Your task to perform on an android device: turn off translation in the chrome app Image 0: 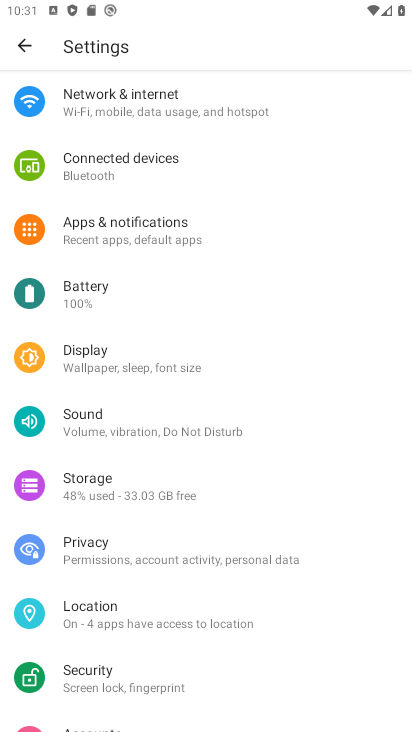
Step 0: press home button
Your task to perform on an android device: turn off translation in the chrome app Image 1: 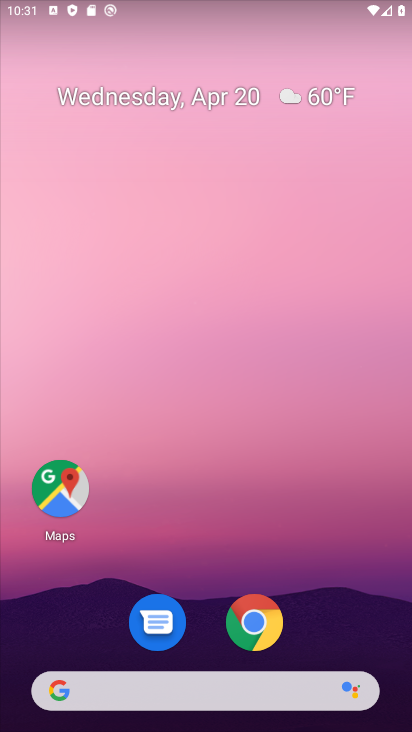
Step 1: click (239, 616)
Your task to perform on an android device: turn off translation in the chrome app Image 2: 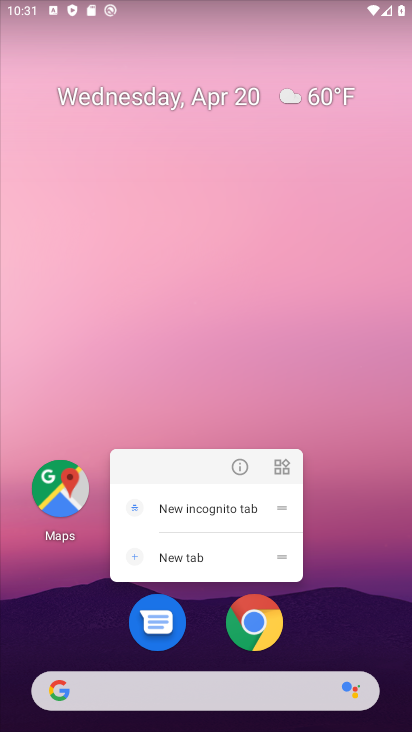
Step 2: click (239, 616)
Your task to perform on an android device: turn off translation in the chrome app Image 3: 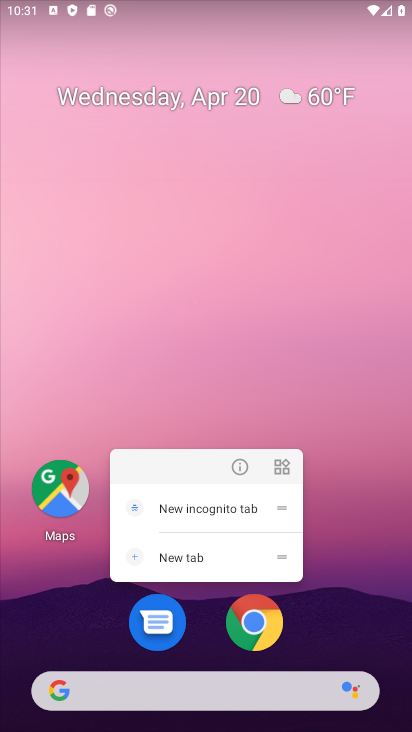
Step 3: click (242, 618)
Your task to perform on an android device: turn off translation in the chrome app Image 4: 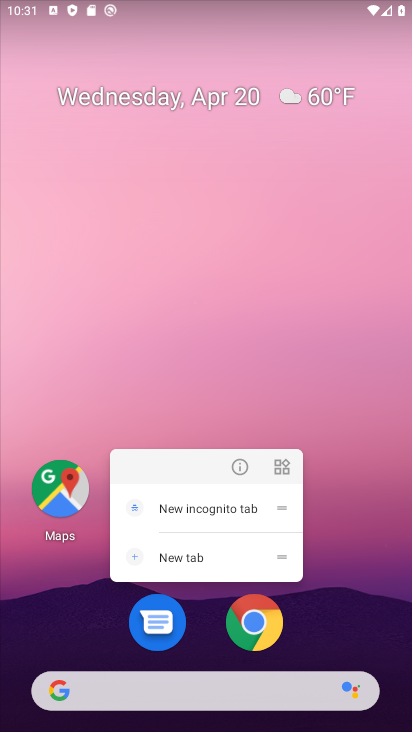
Step 4: click (256, 614)
Your task to perform on an android device: turn off translation in the chrome app Image 5: 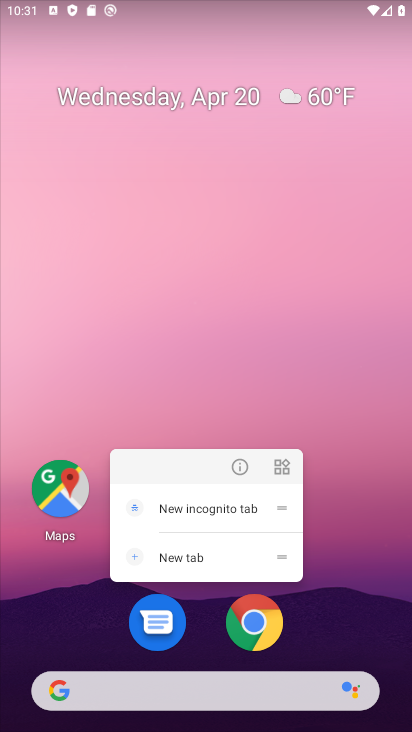
Step 5: click (268, 608)
Your task to perform on an android device: turn off translation in the chrome app Image 6: 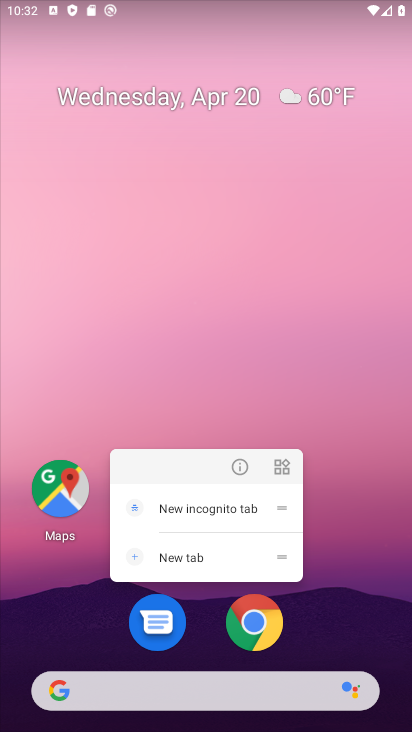
Step 6: click (248, 616)
Your task to perform on an android device: turn off translation in the chrome app Image 7: 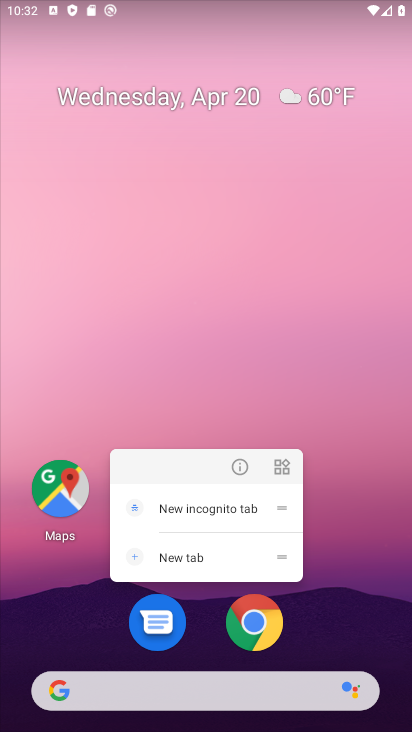
Step 7: click (248, 616)
Your task to perform on an android device: turn off translation in the chrome app Image 8: 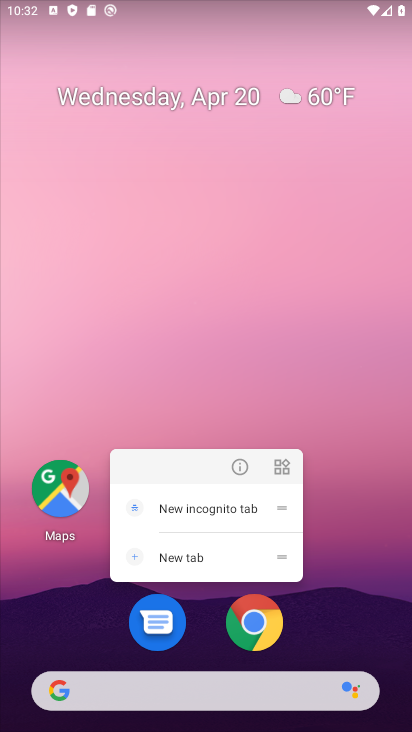
Step 8: click (248, 616)
Your task to perform on an android device: turn off translation in the chrome app Image 9: 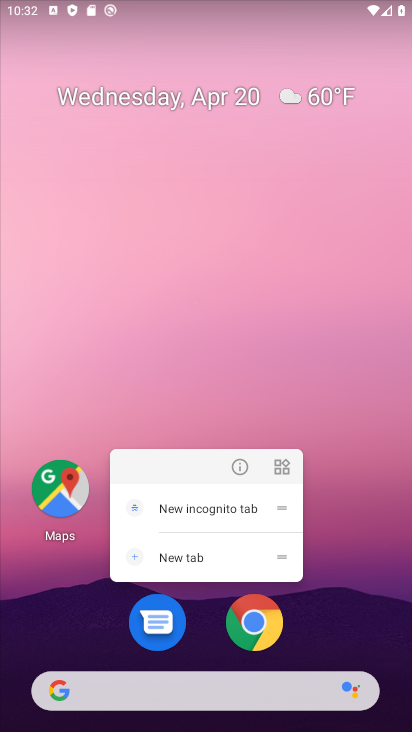
Step 9: click (248, 616)
Your task to perform on an android device: turn off translation in the chrome app Image 10: 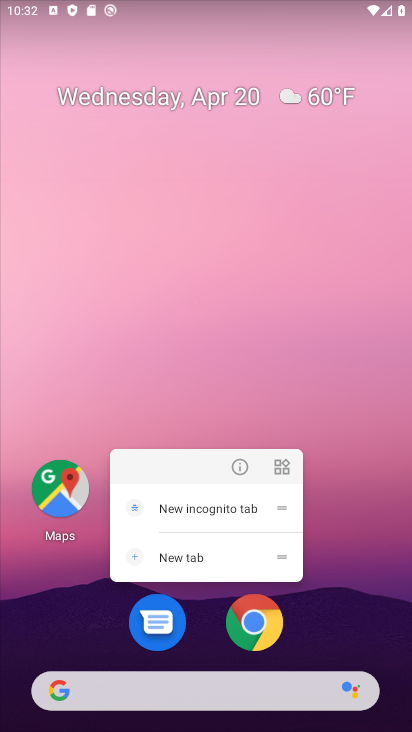
Step 10: click (248, 616)
Your task to perform on an android device: turn off translation in the chrome app Image 11: 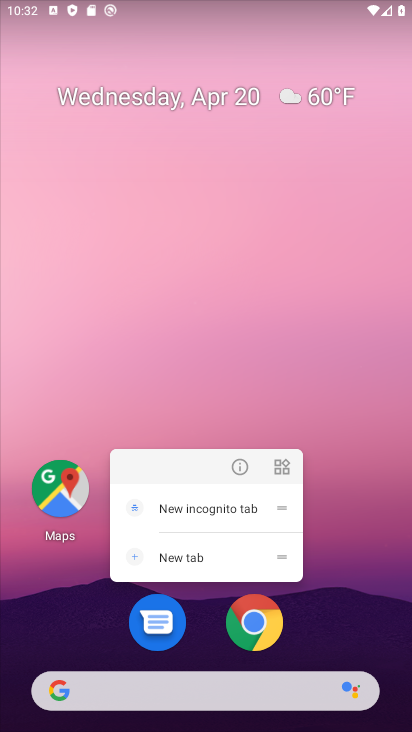
Step 11: click (248, 616)
Your task to perform on an android device: turn off translation in the chrome app Image 12: 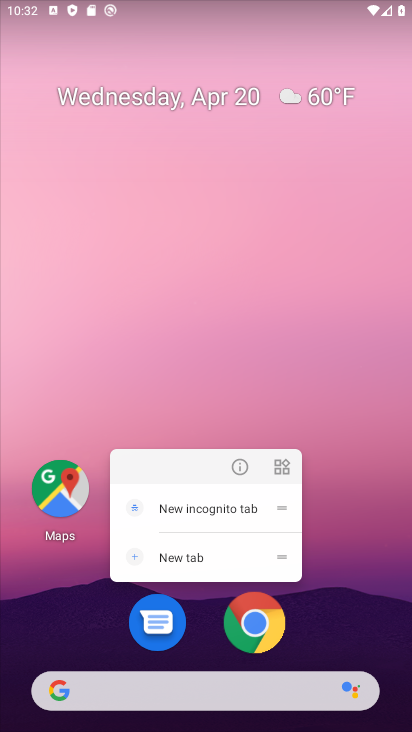
Step 12: click (248, 616)
Your task to perform on an android device: turn off translation in the chrome app Image 13: 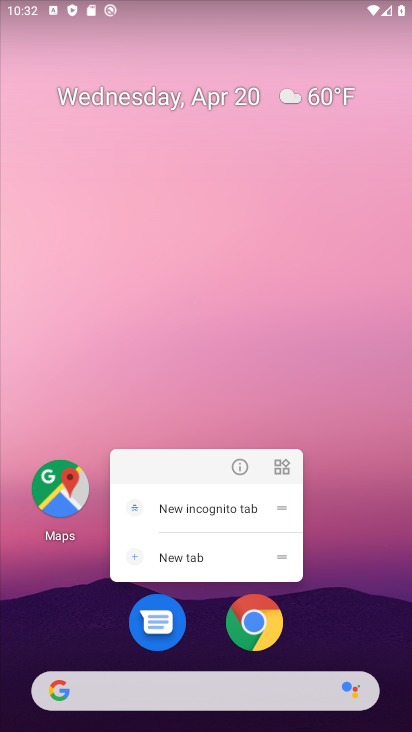
Step 13: click (248, 616)
Your task to perform on an android device: turn off translation in the chrome app Image 14: 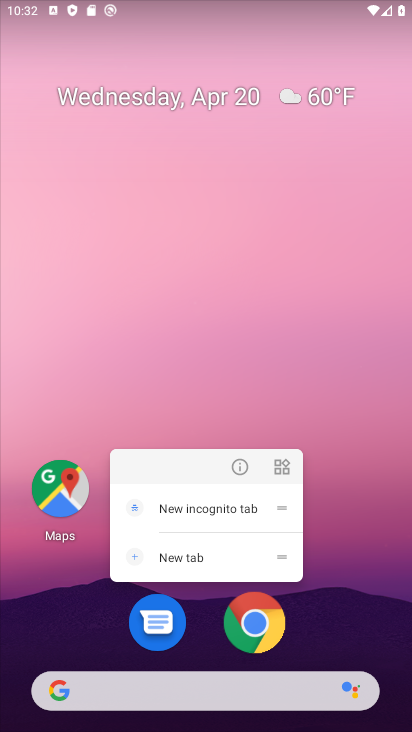
Step 14: click (248, 616)
Your task to perform on an android device: turn off translation in the chrome app Image 15: 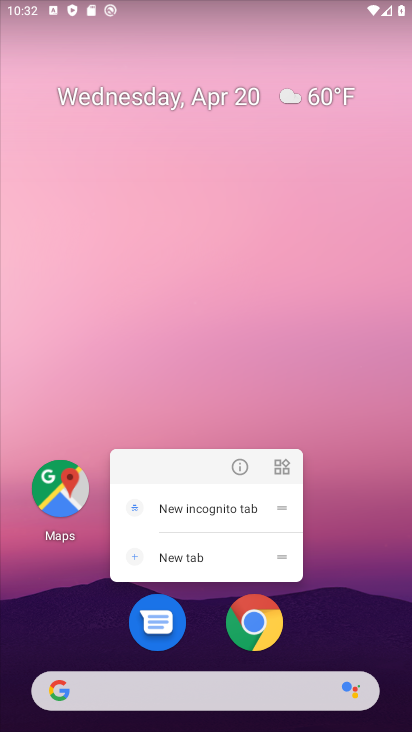
Step 15: click (248, 616)
Your task to perform on an android device: turn off translation in the chrome app Image 16: 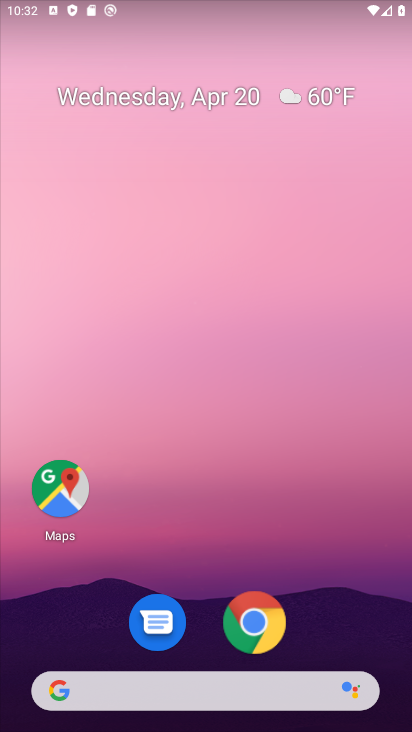
Step 16: click (248, 616)
Your task to perform on an android device: turn off translation in the chrome app Image 17: 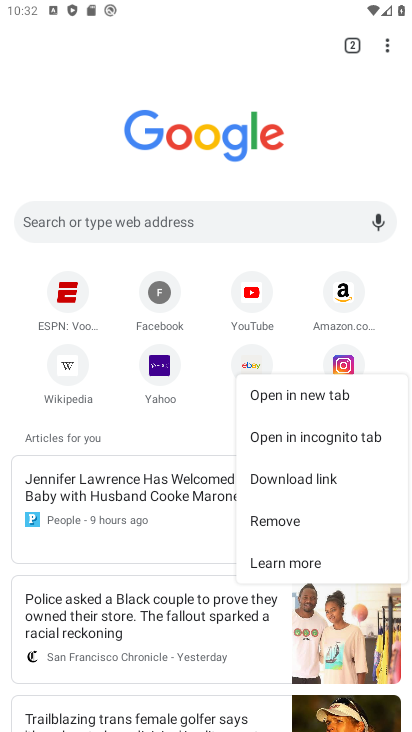
Step 17: click (382, 53)
Your task to perform on an android device: turn off translation in the chrome app Image 18: 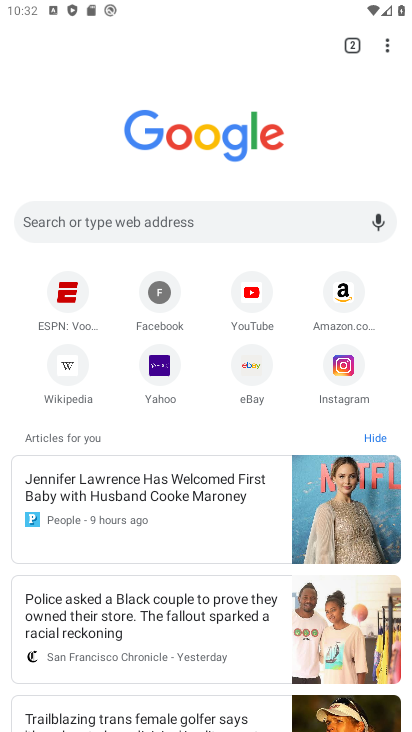
Step 18: drag from (389, 33) to (227, 374)
Your task to perform on an android device: turn off translation in the chrome app Image 19: 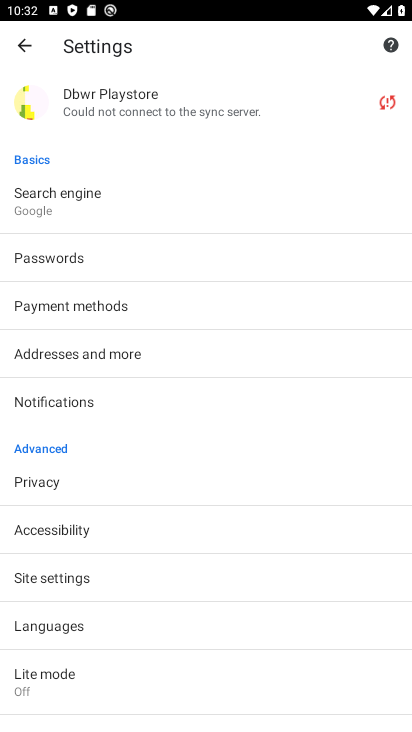
Step 19: drag from (127, 645) to (119, 265)
Your task to perform on an android device: turn off translation in the chrome app Image 20: 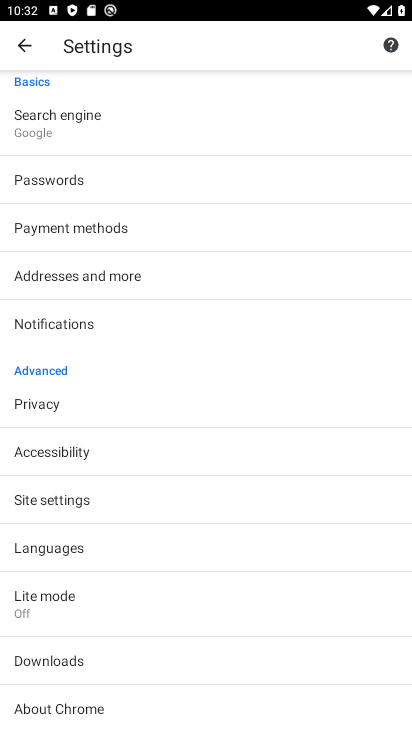
Step 20: click (63, 552)
Your task to perform on an android device: turn off translation in the chrome app Image 21: 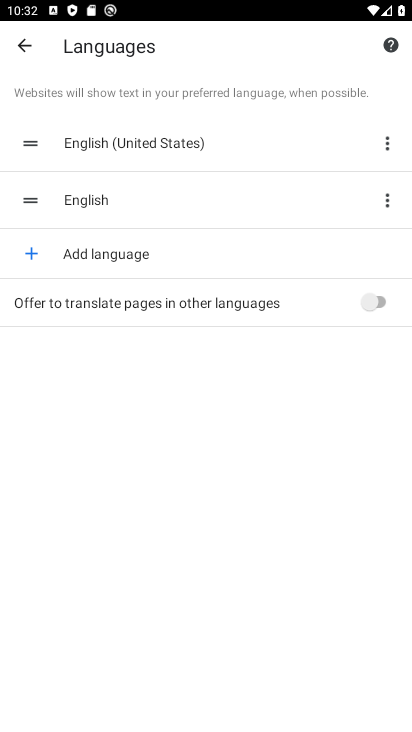
Step 21: task complete